Your task to perform on an android device: toggle airplane mode Image 0: 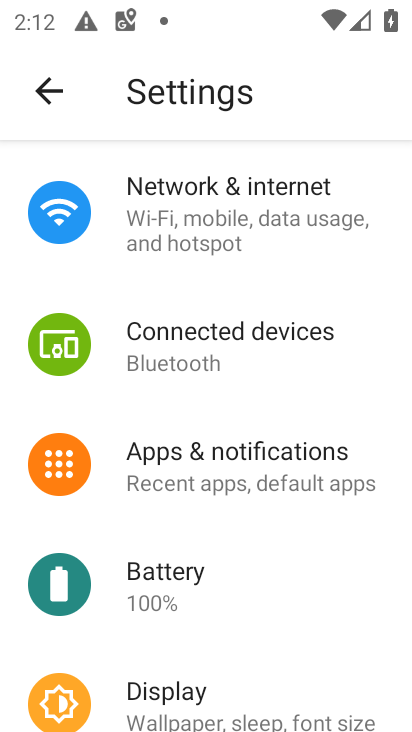
Step 0: drag from (215, 317) to (217, 550)
Your task to perform on an android device: toggle airplane mode Image 1: 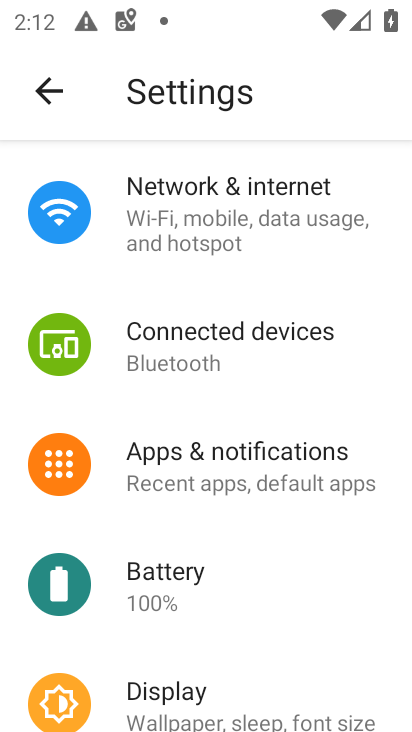
Step 1: drag from (216, 170) to (168, 608)
Your task to perform on an android device: toggle airplane mode Image 2: 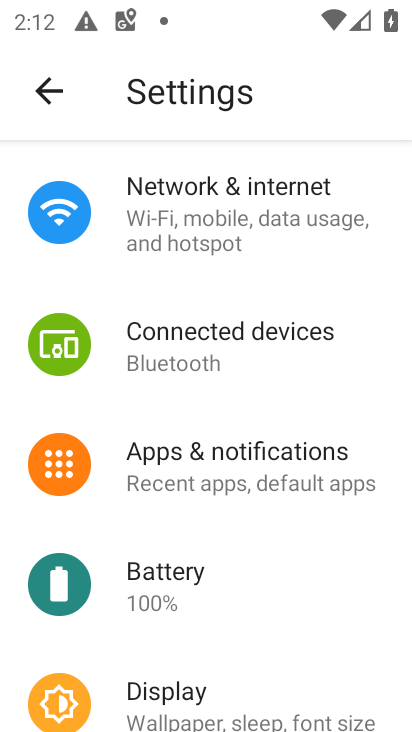
Step 2: click (195, 221)
Your task to perform on an android device: toggle airplane mode Image 3: 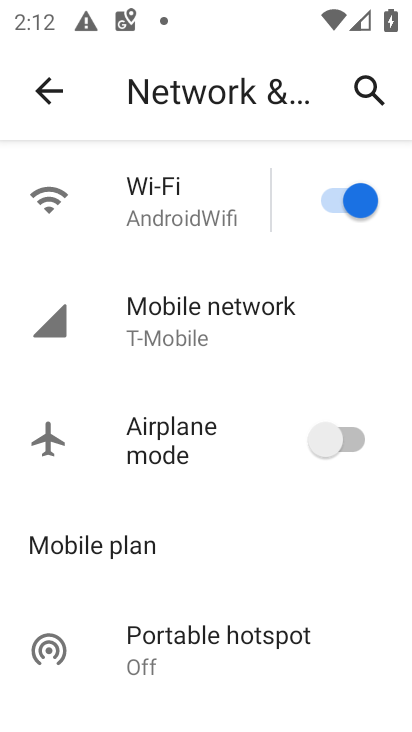
Step 3: click (357, 437)
Your task to perform on an android device: toggle airplane mode Image 4: 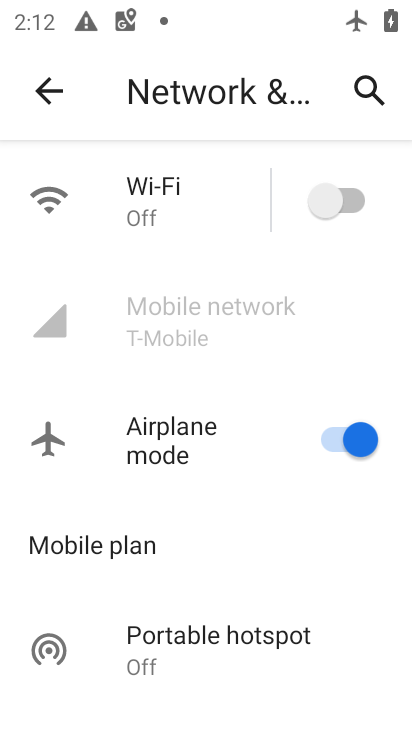
Step 4: task complete